Your task to perform on an android device: change alarm snooze length Image 0: 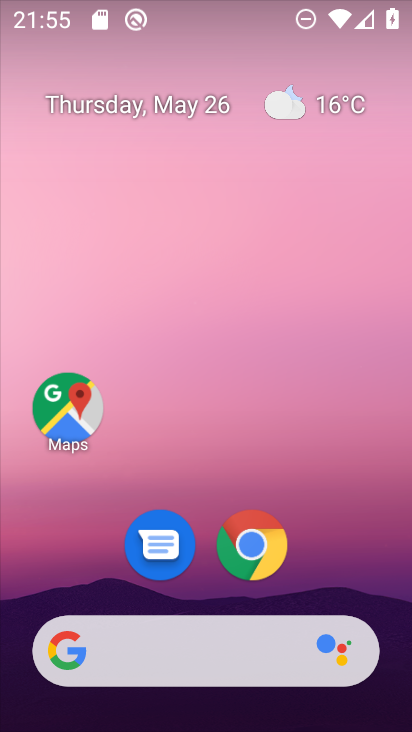
Step 0: drag from (318, 542) to (301, 101)
Your task to perform on an android device: change alarm snooze length Image 1: 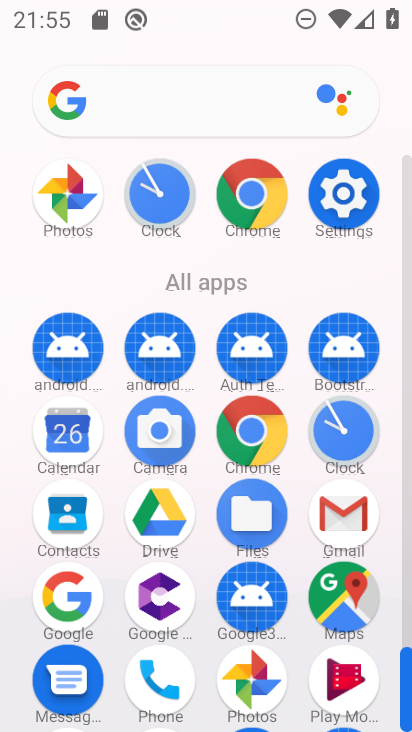
Step 1: click (351, 434)
Your task to perform on an android device: change alarm snooze length Image 2: 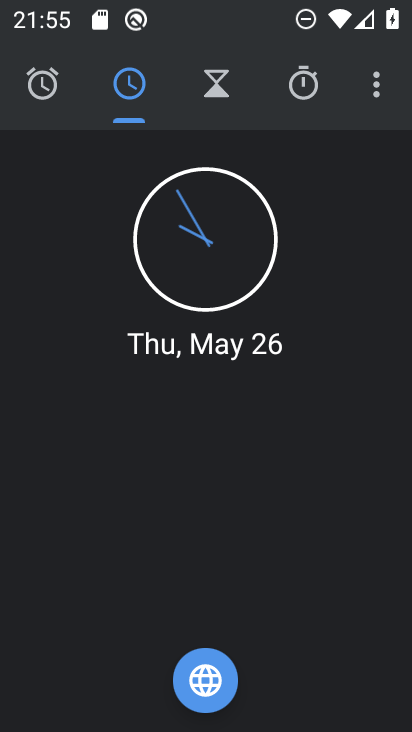
Step 2: click (369, 88)
Your task to perform on an android device: change alarm snooze length Image 3: 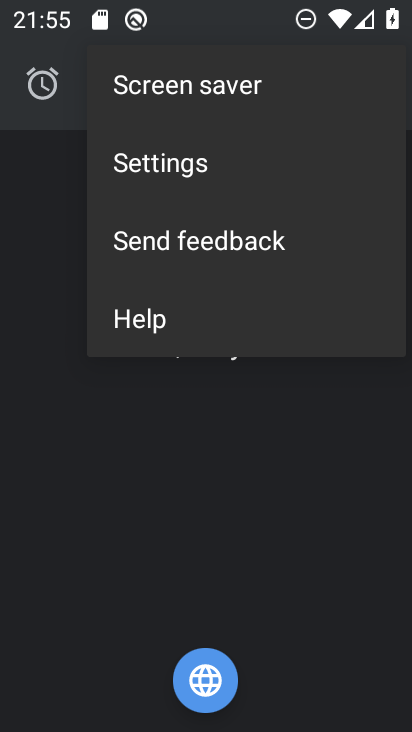
Step 3: click (207, 163)
Your task to perform on an android device: change alarm snooze length Image 4: 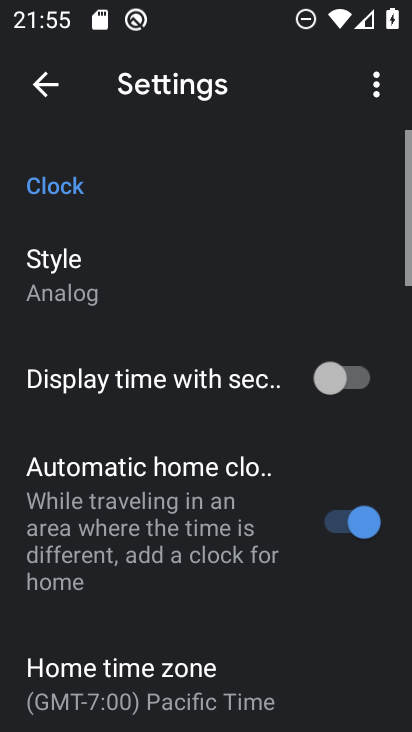
Step 4: drag from (220, 597) to (216, 179)
Your task to perform on an android device: change alarm snooze length Image 5: 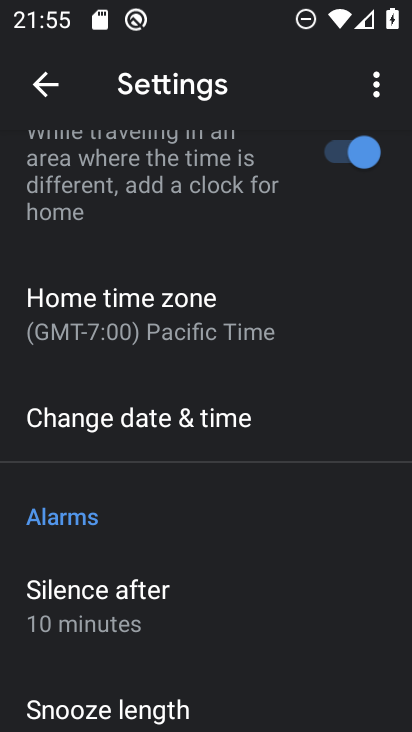
Step 5: drag from (218, 662) to (203, 458)
Your task to perform on an android device: change alarm snooze length Image 6: 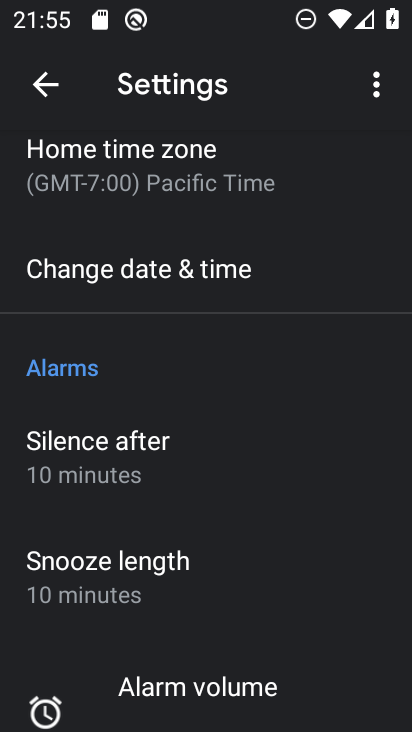
Step 6: click (157, 590)
Your task to perform on an android device: change alarm snooze length Image 7: 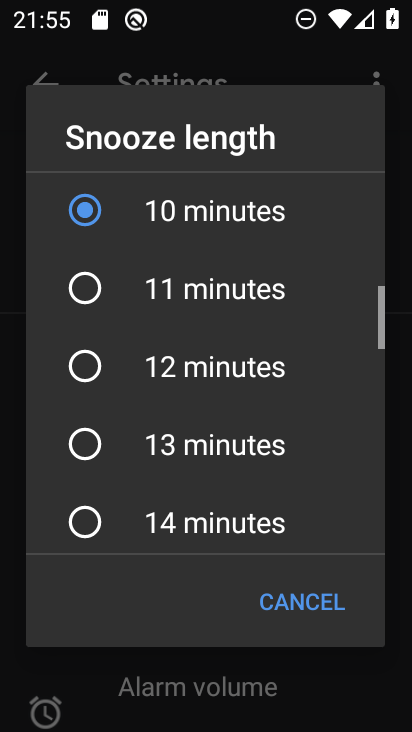
Step 7: click (93, 420)
Your task to perform on an android device: change alarm snooze length Image 8: 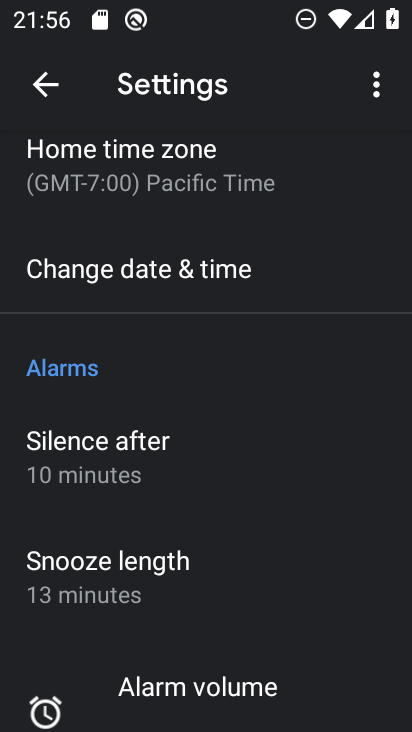
Step 8: task complete